Your task to perform on an android device: Check the news Image 0: 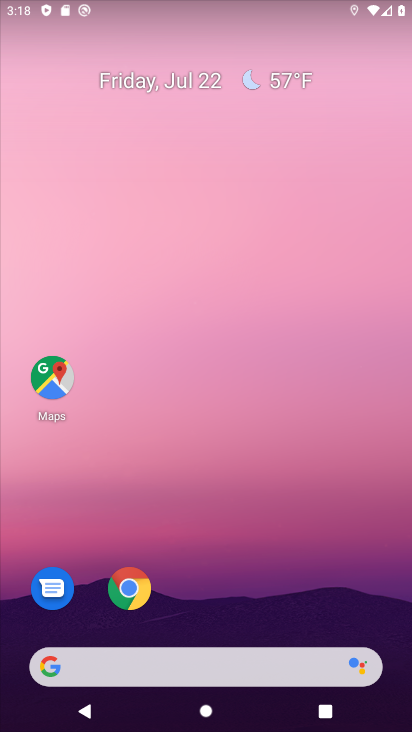
Step 0: click (201, 669)
Your task to perform on an android device: Check the news Image 1: 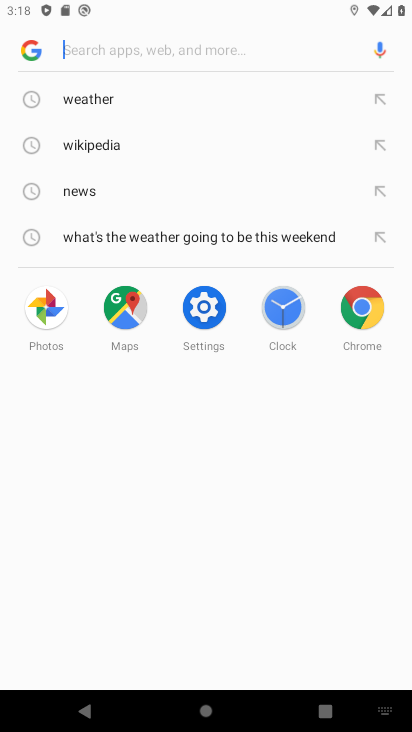
Step 1: click (94, 195)
Your task to perform on an android device: Check the news Image 2: 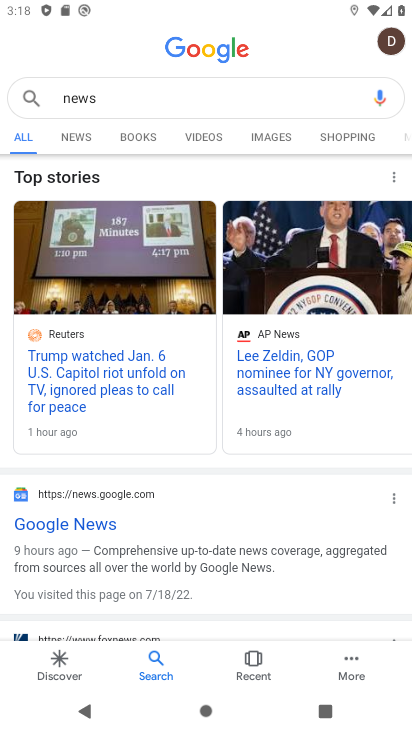
Step 2: click (91, 133)
Your task to perform on an android device: Check the news Image 3: 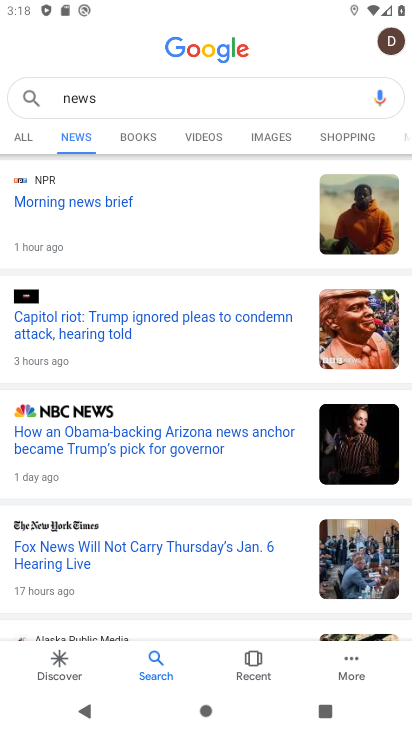
Step 3: task complete